Your task to perform on an android device: Go to Wikipedia Image 0: 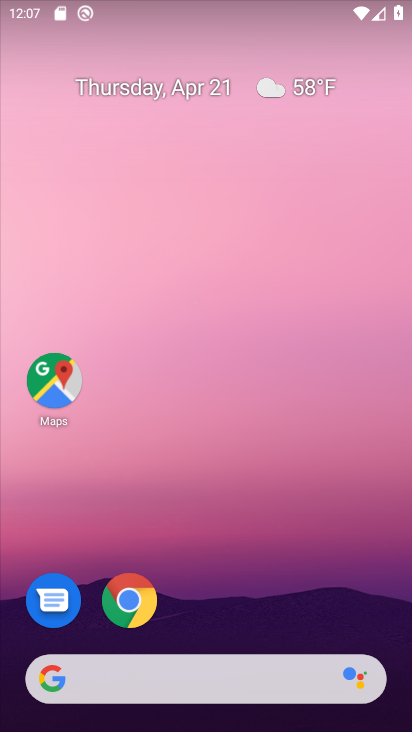
Step 0: drag from (318, 537) to (354, 117)
Your task to perform on an android device: Go to Wikipedia Image 1: 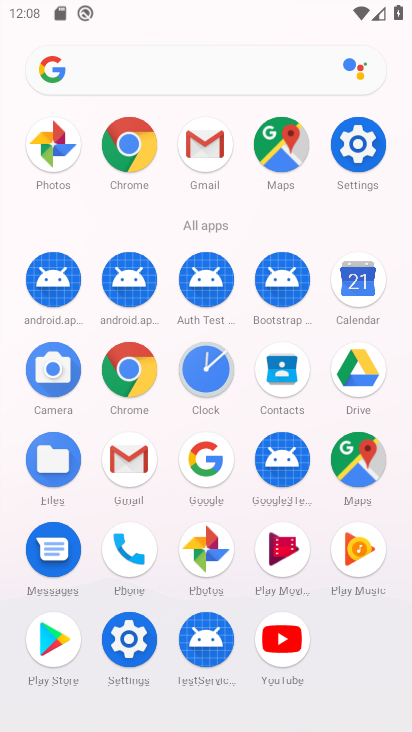
Step 1: click (213, 447)
Your task to perform on an android device: Go to Wikipedia Image 2: 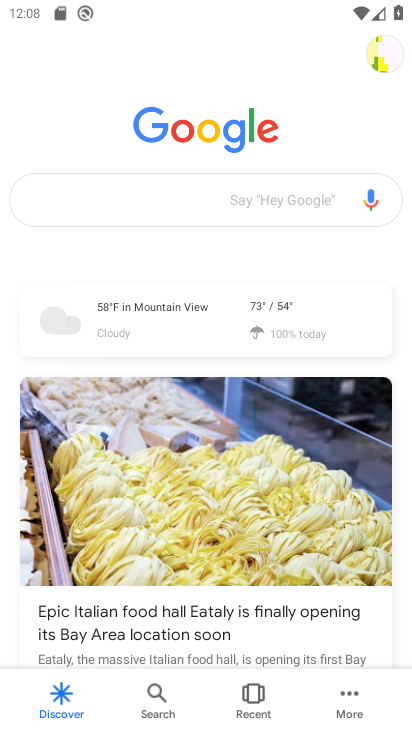
Step 2: click (189, 199)
Your task to perform on an android device: Go to Wikipedia Image 3: 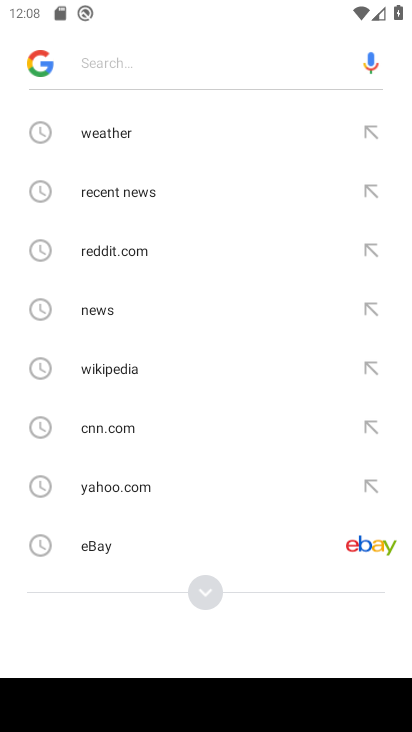
Step 3: click (106, 365)
Your task to perform on an android device: Go to Wikipedia Image 4: 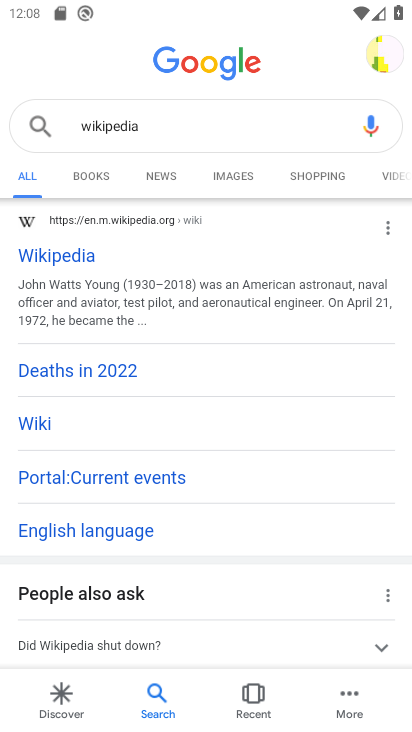
Step 4: click (80, 256)
Your task to perform on an android device: Go to Wikipedia Image 5: 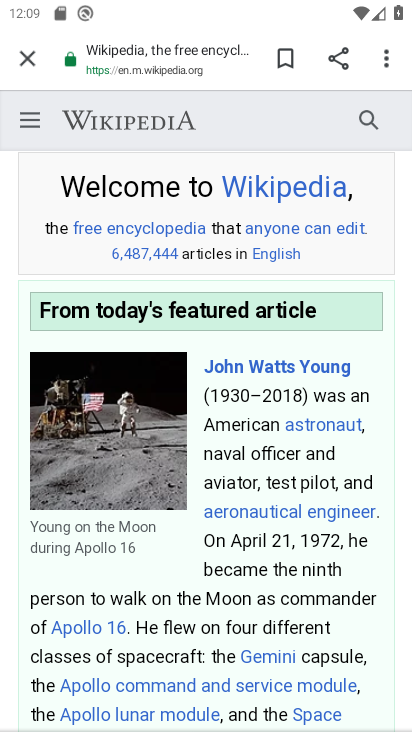
Step 5: task complete